Your task to perform on an android device: delete browsing data in the chrome app Image 0: 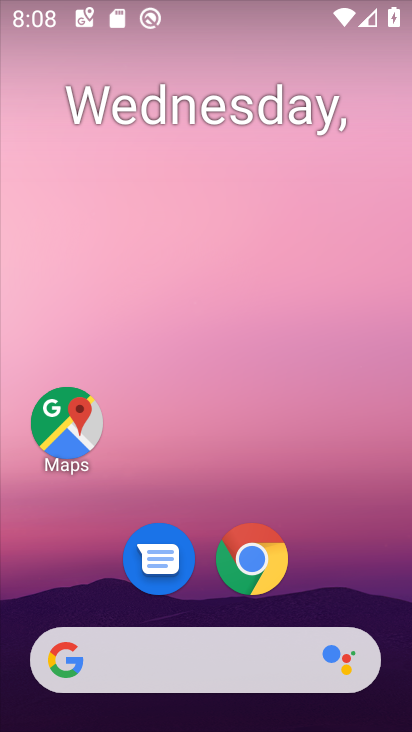
Step 0: drag from (386, 567) to (347, 165)
Your task to perform on an android device: delete browsing data in the chrome app Image 1: 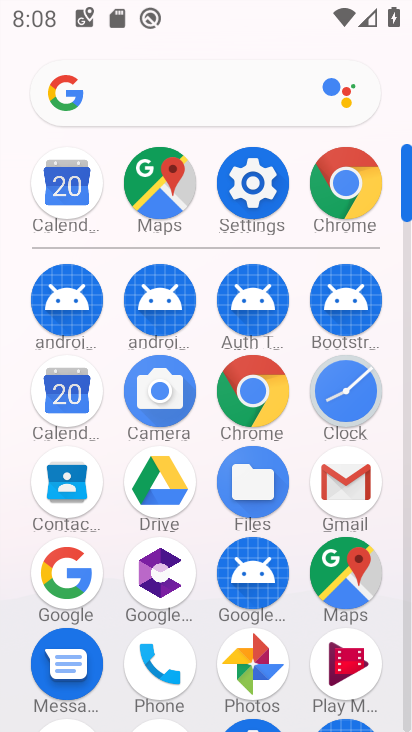
Step 1: click (250, 401)
Your task to perform on an android device: delete browsing data in the chrome app Image 2: 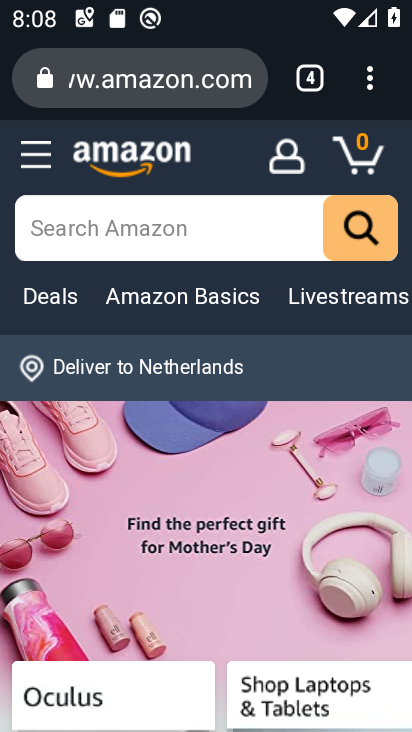
Step 2: drag from (382, 93) to (150, 533)
Your task to perform on an android device: delete browsing data in the chrome app Image 3: 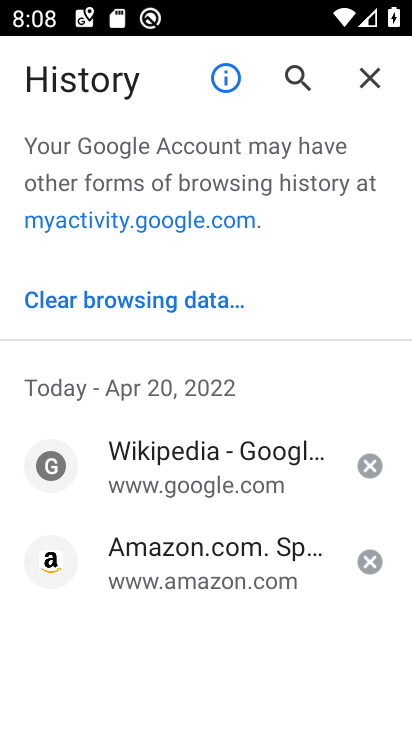
Step 3: click (190, 300)
Your task to perform on an android device: delete browsing data in the chrome app Image 4: 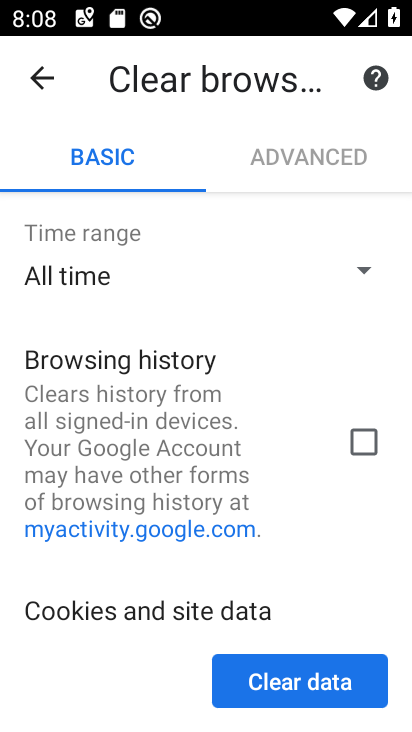
Step 4: click (359, 444)
Your task to perform on an android device: delete browsing data in the chrome app Image 5: 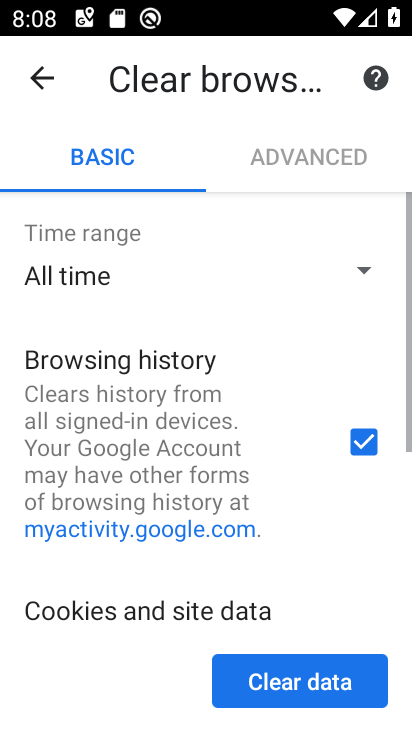
Step 5: click (327, 674)
Your task to perform on an android device: delete browsing data in the chrome app Image 6: 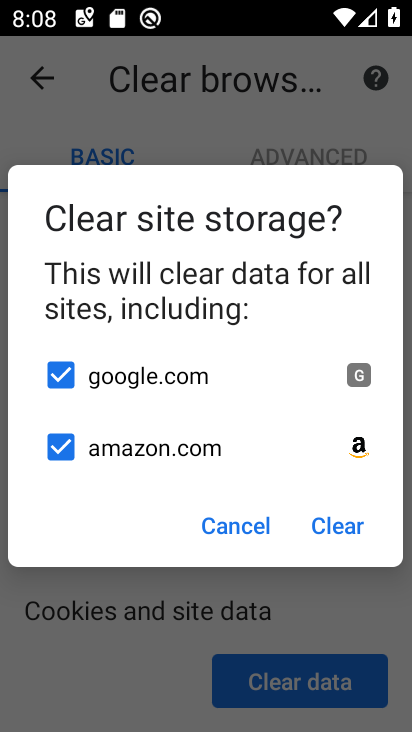
Step 6: click (329, 519)
Your task to perform on an android device: delete browsing data in the chrome app Image 7: 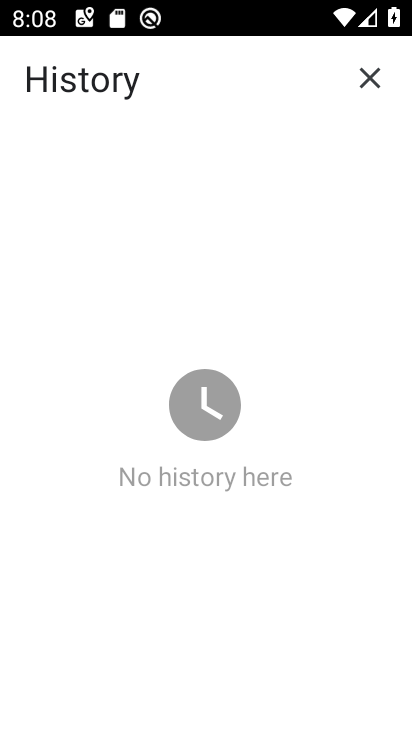
Step 7: task complete